Your task to perform on an android device: change the upload size in google photos Image 0: 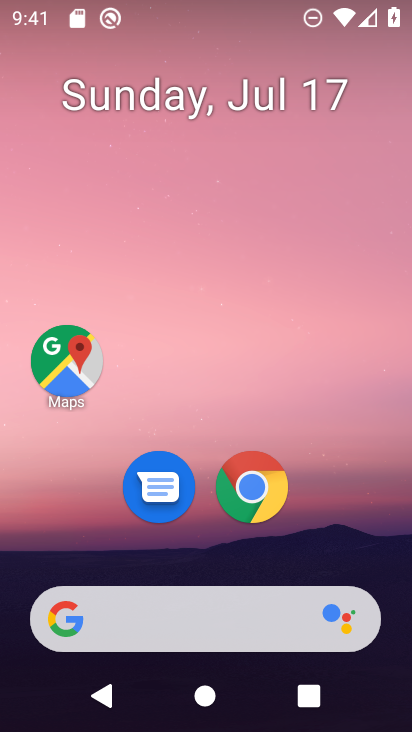
Step 0: press home button
Your task to perform on an android device: change the upload size in google photos Image 1: 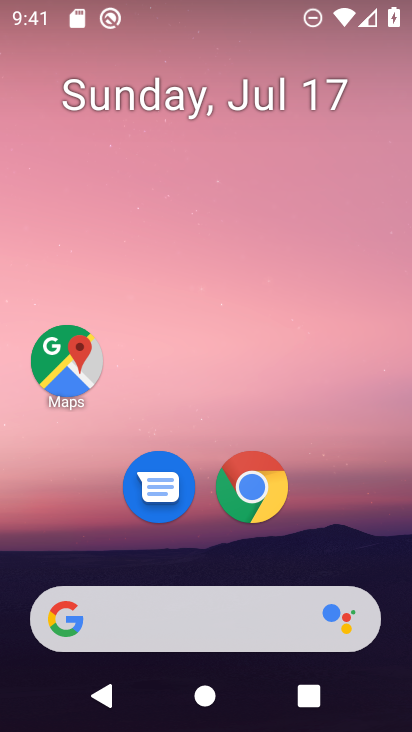
Step 1: drag from (322, 544) to (370, 47)
Your task to perform on an android device: change the upload size in google photos Image 2: 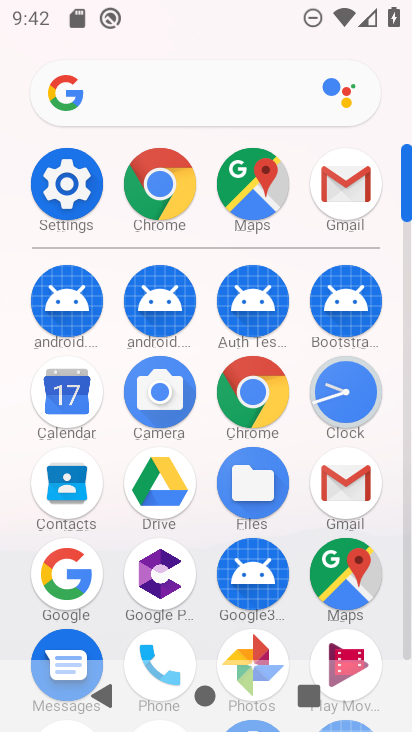
Step 2: drag from (397, 548) to (411, 106)
Your task to perform on an android device: change the upload size in google photos Image 3: 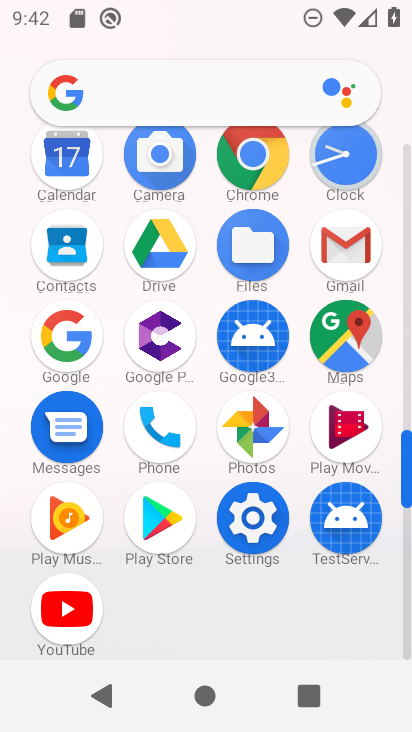
Step 3: click (249, 405)
Your task to perform on an android device: change the upload size in google photos Image 4: 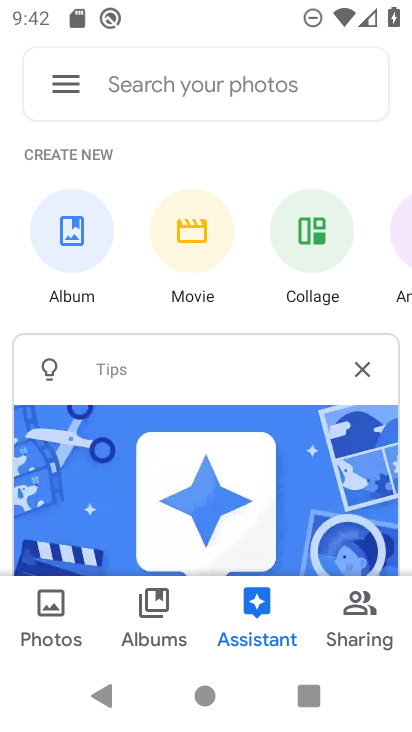
Step 4: click (62, 90)
Your task to perform on an android device: change the upload size in google photos Image 5: 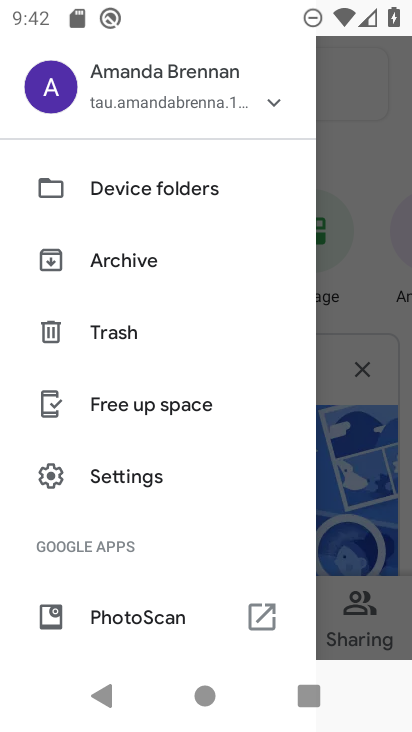
Step 5: click (132, 481)
Your task to perform on an android device: change the upload size in google photos Image 6: 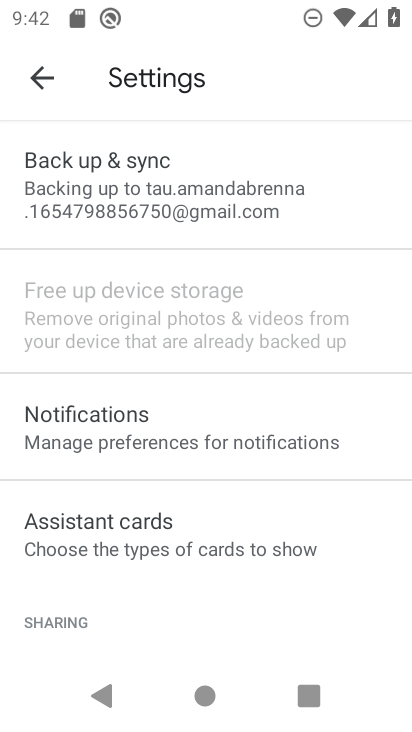
Step 6: click (105, 162)
Your task to perform on an android device: change the upload size in google photos Image 7: 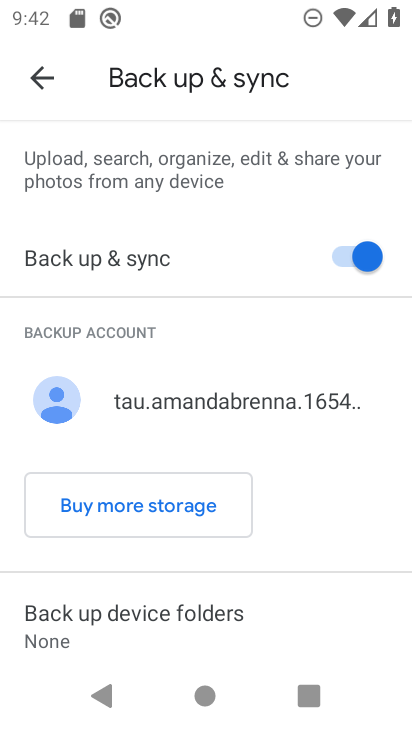
Step 7: drag from (318, 585) to (364, 143)
Your task to perform on an android device: change the upload size in google photos Image 8: 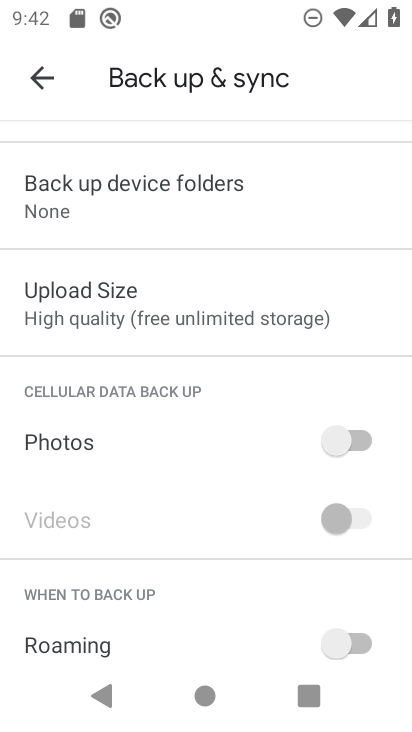
Step 8: click (91, 294)
Your task to perform on an android device: change the upload size in google photos Image 9: 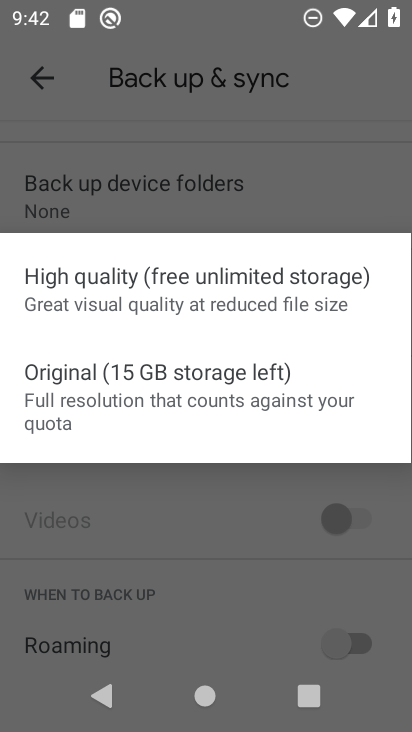
Step 9: click (143, 401)
Your task to perform on an android device: change the upload size in google photos Image 10: 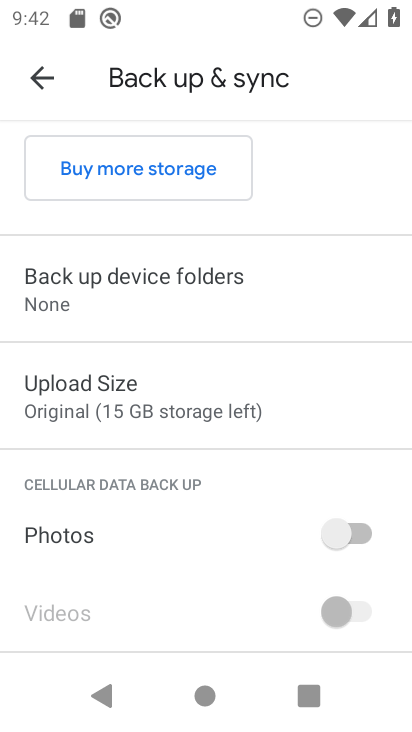
Step 10: task complete